Your task to perform on an android device: turn off wifi Image 0: 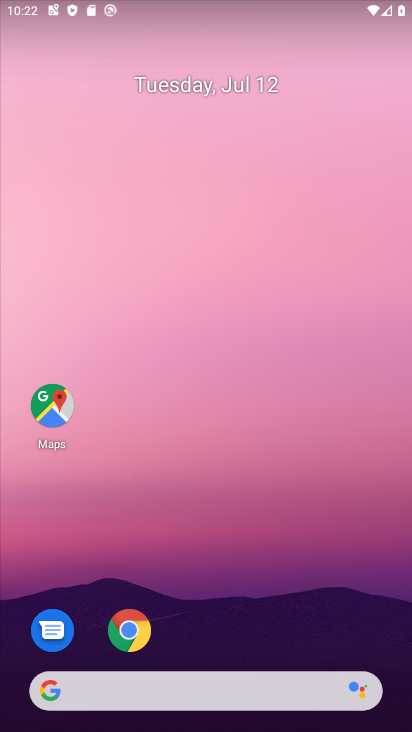
Step 0: drag from (209, 623) to (190, 133)
Your task to perform on an android device: turn off wifi Image 1: 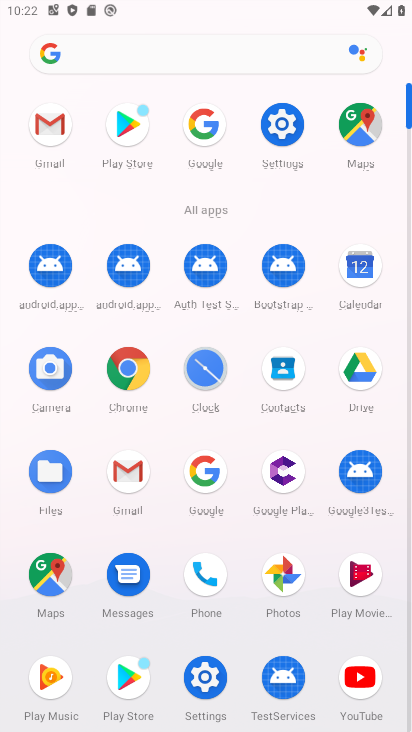
Step 1: click (283, 120)
Your task to perform on an android device: turn off wifi Image 2: 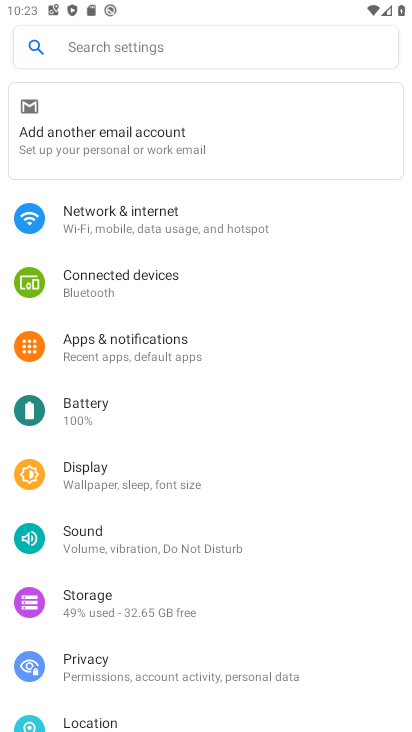
Step 2: click (130, 223)
Your task to perform on an android device: turn off wifi Image 3: 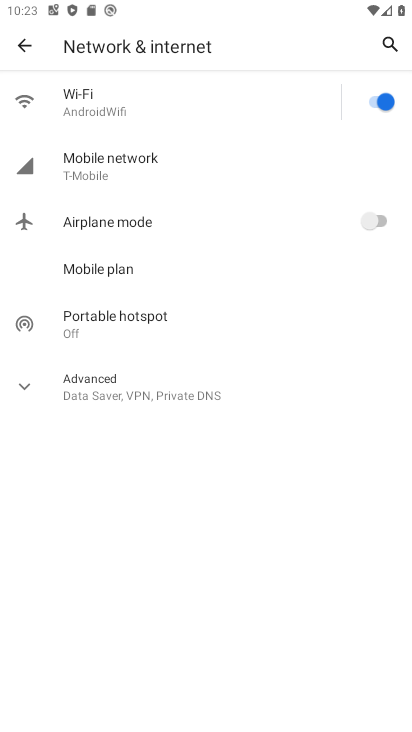
Step 3: click (381, 104)
Your task to perform on an android device: turn off wifi Image 4: 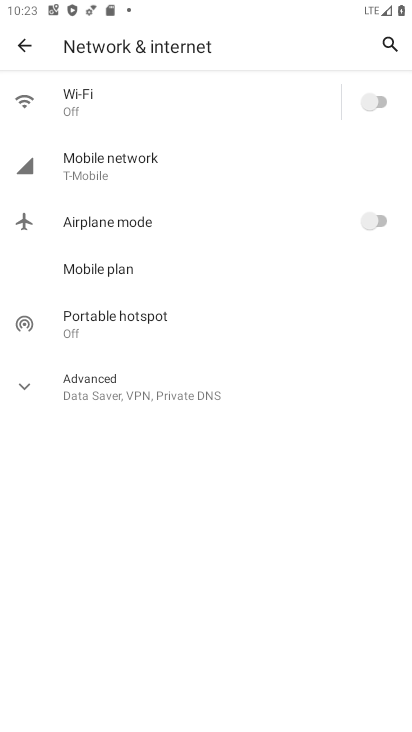
Step 4: task complete